Your task to perform on an android device: Go to sound settings Image 0: 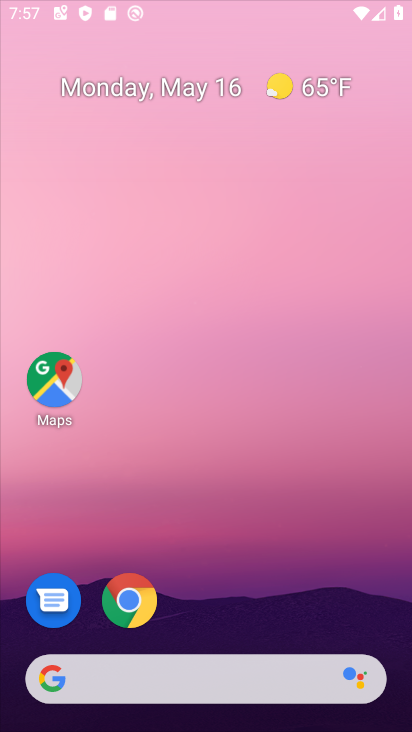
Step 0: click (207, 253)
Your task to perform on an android device: Go to sound settings Image 1: 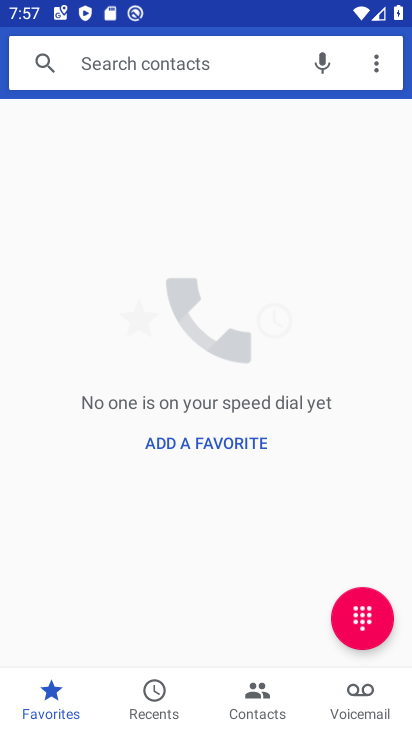
Step 1: press home button
Your task to perform on an android device: Go to sound settings Image 2: 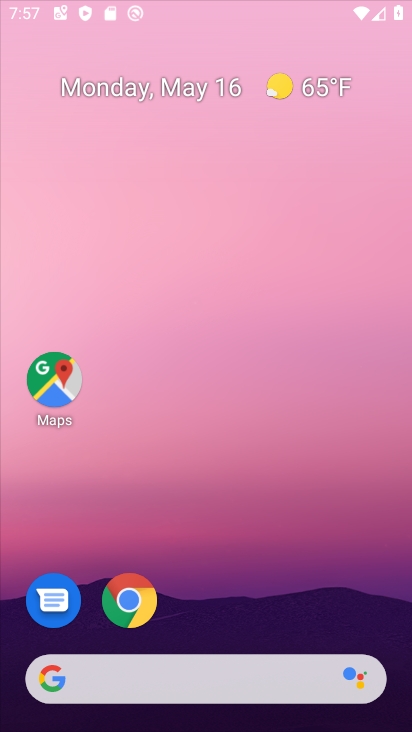
Step 2: drag from (179, 630) to (271, 12)
Your task to perform on an android device: Go to sound settings Image 3: 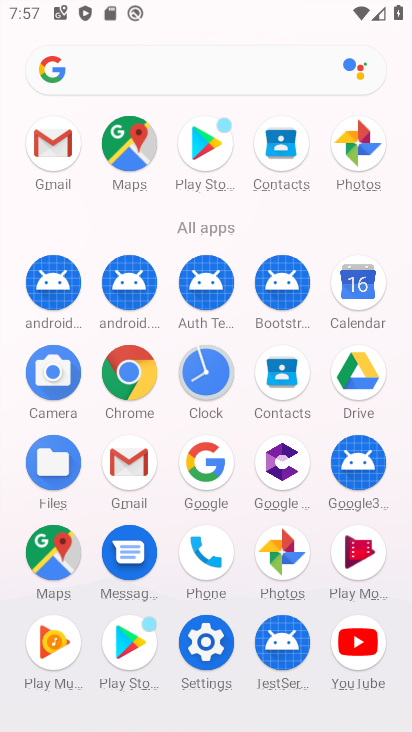
Step 3: click (210, 643)
Your task to perform on an android device: Go to sound settings Image 4: 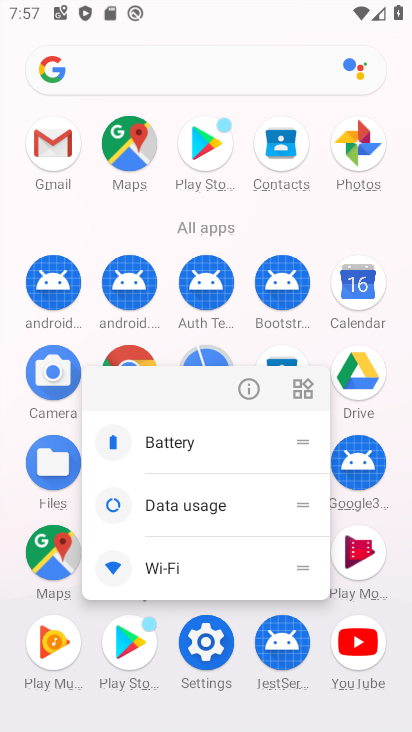
Step 4: click (246, 388)
Your task to perform on an android device: Go to sound settings Image 5: 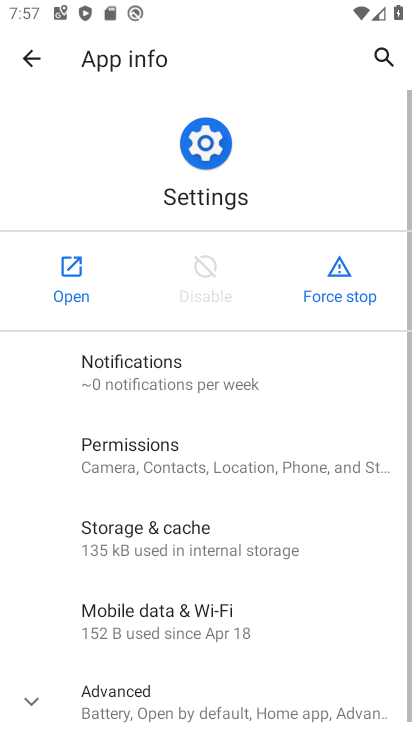
Step 5: click (66, 277)
Your task to perform on an android device: Go to sound settings Image 6: 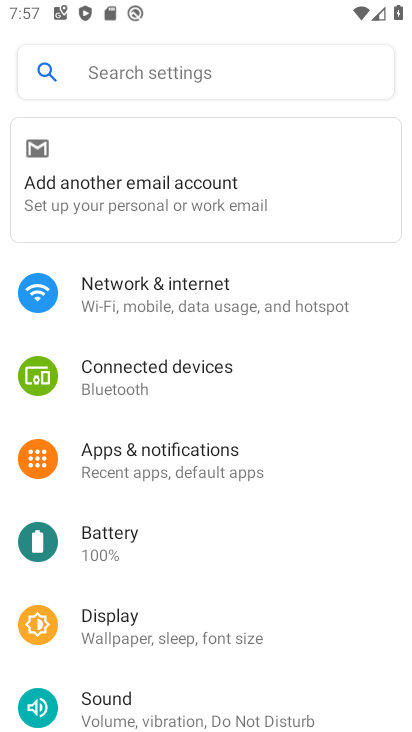
Step 6: click (126, 693)
Your task to perform on an android device: Go to sound settings Image 7: 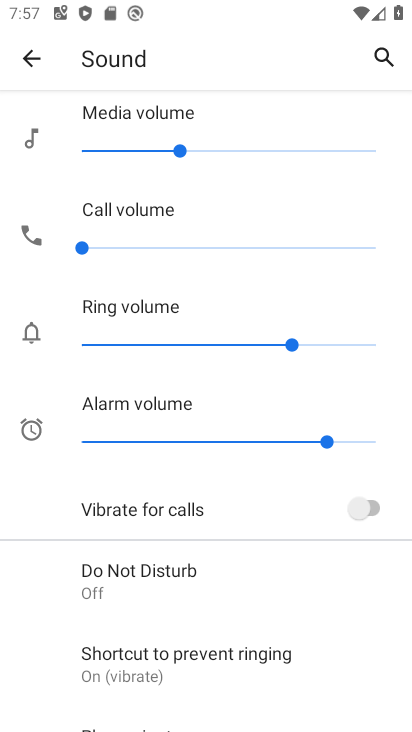
Step 7: task complete